Your task to perform on an android device: Go to CNN.com Image 0: 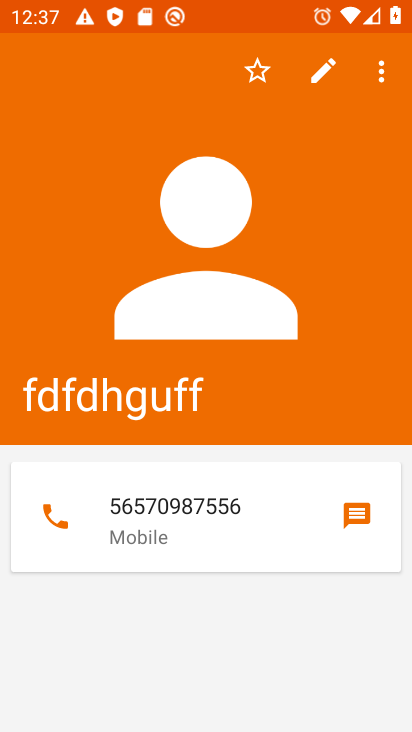
Step 0: press home button
Your task to perform on an android device: Go to CNN.com Image 1: 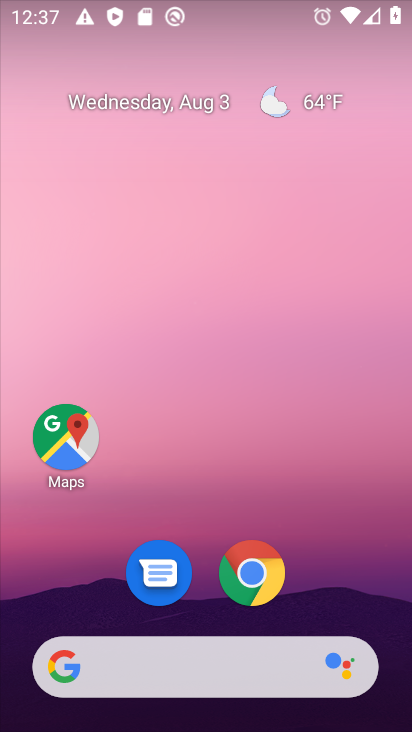
Step 1: drag from (194, 585) to (275, 106)
Your task to perform on an android device: Go to CNN.com Image 2: 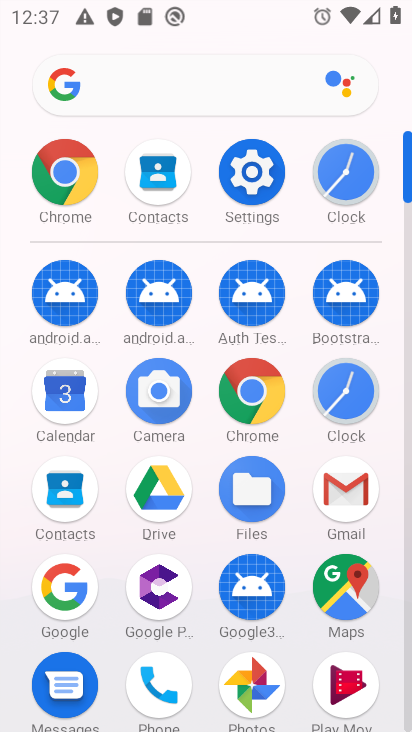
Step 2: click (72, 195)
Your task to perform on an android device: Go to CNN.com Image 3: 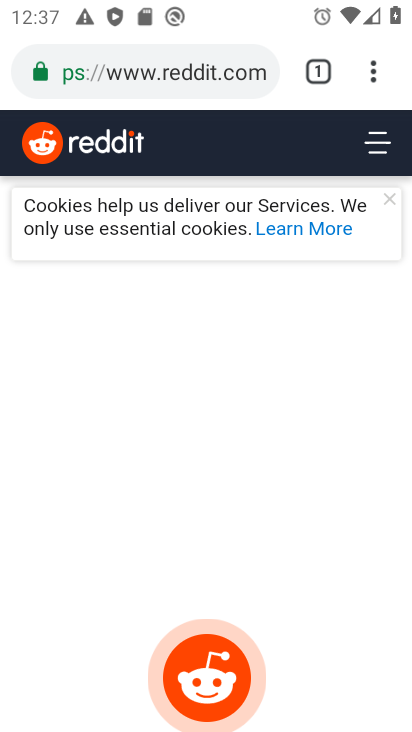
Step 3: click (221, 73)
Your task to perform on an android device: Go to CNN.com Image 4: 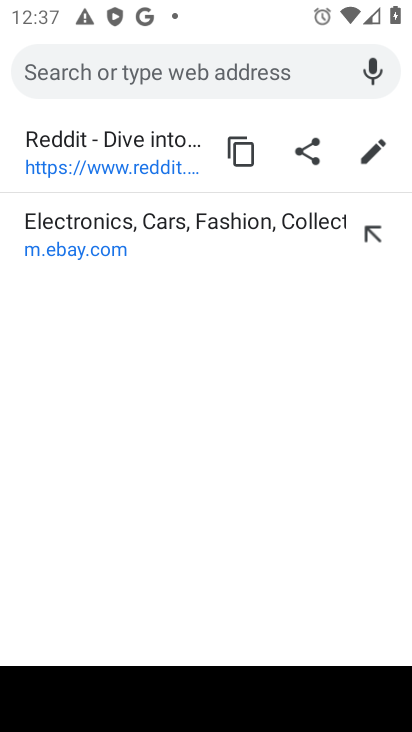
Step 4: type "cnn"
Your task to perform on an android device: Go to CNN.com Image 5: 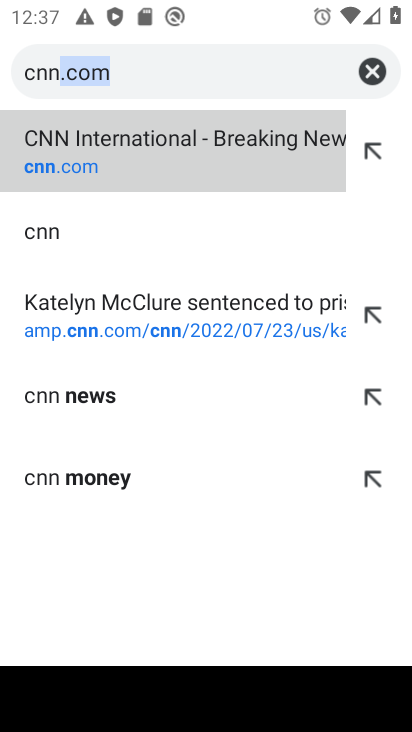
Step 5: click (231, 136)
Your task to perform on an android device: Go to CNN.com Image 6: 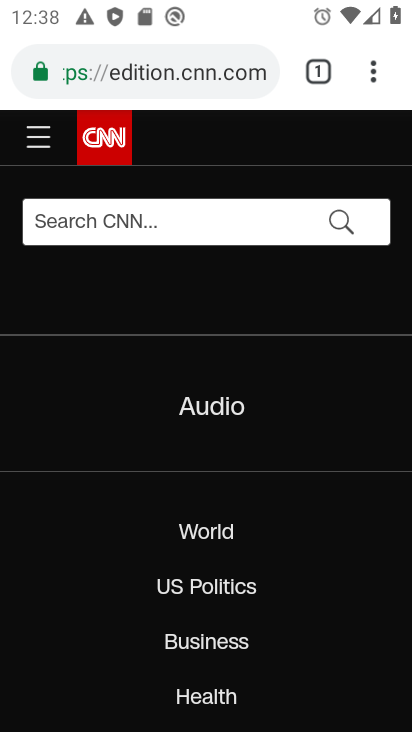
Step 6: task complete